Your task to perform on an android device: Open calendar and show me the fourth week of next month Image 0: 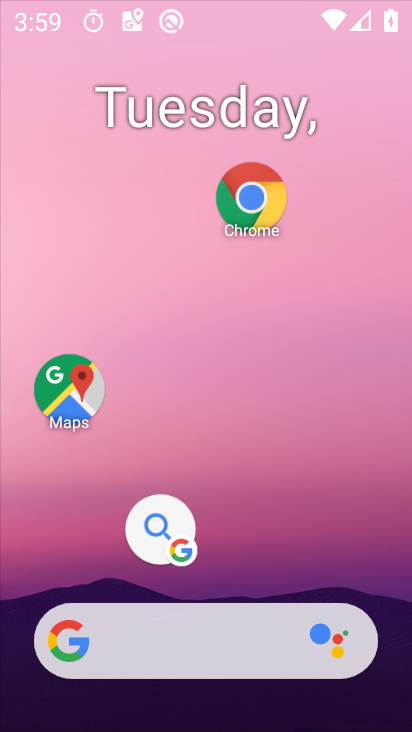
Step 0: click (78, 381)
Your task to perform on an android device: Open calendar and show me the fourth week of next month Image 1: 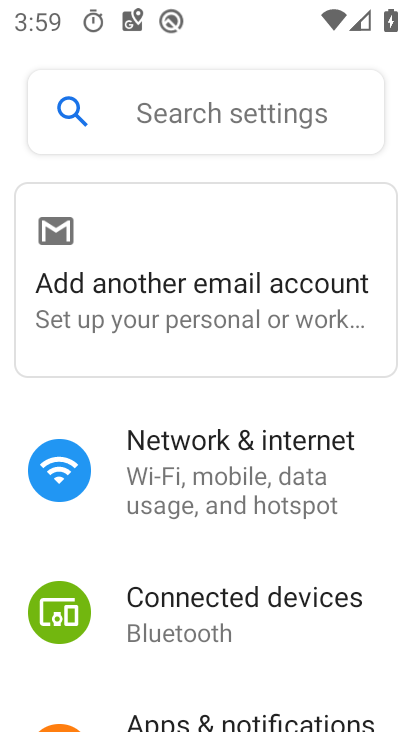
Step 1: press home button
Your task to perform on an android device: Open calendar and show me the fourth week of next month Image 2: 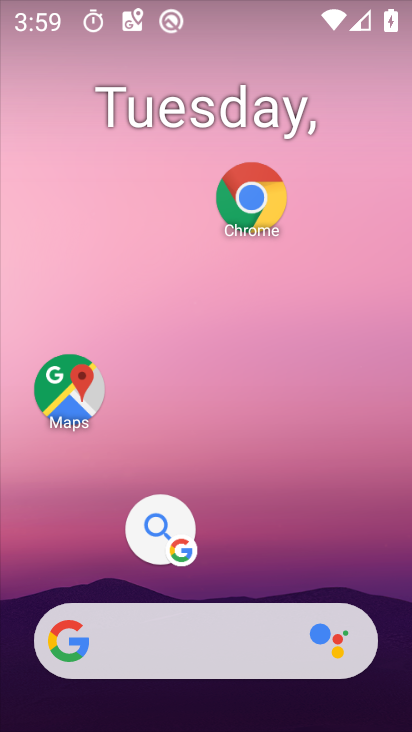
Step 2: drag from (214, 601) to (284, 237)
Your task to perform on an android device: Open calendar and show me the fourth week of next month Image 3: 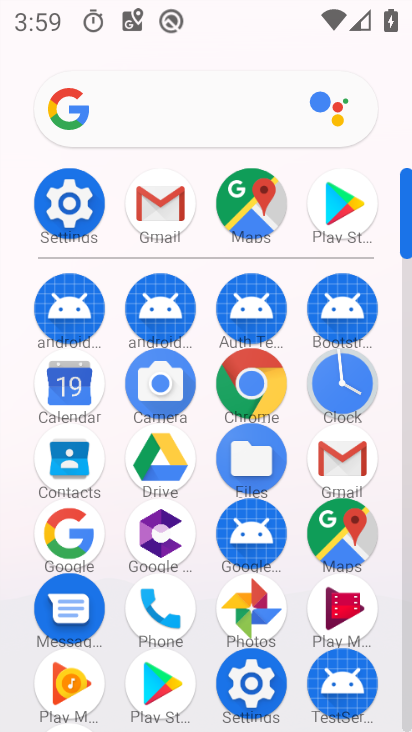
Step 3: click (70, 396)
Your task to perform on an android device: Open calendar and show me the fourth week of next month Image 4: 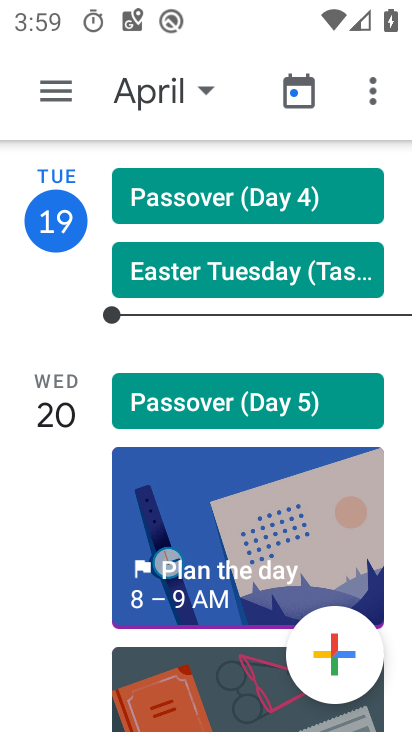
Step 4: click (180, 87)
Your task to perform on an android device: Open calendar and show me the fourth week of next month Image 5: 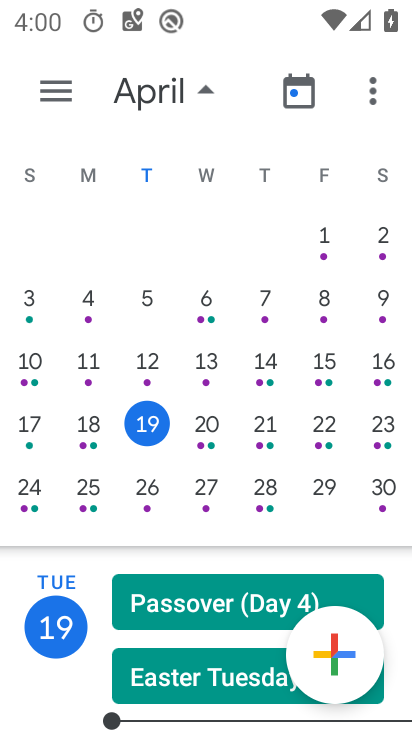
Step 5: click (172, 92)
Your task to perform on an android device: Open calendar and show me the fourth week of next month Image 6: 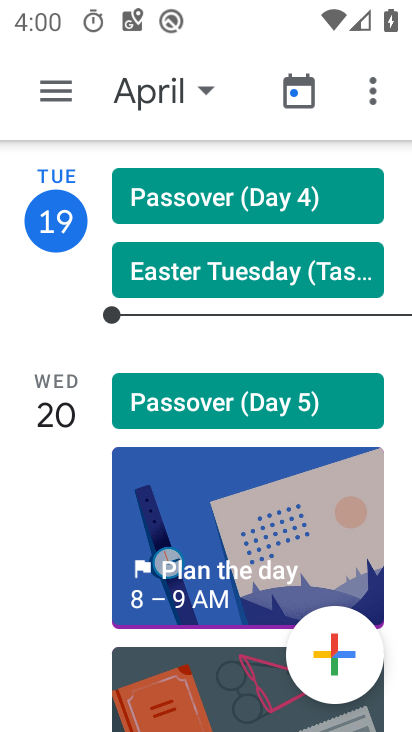
Step 6: click (193, 81)
Your task to perform on an android device: Open calendar and show me the fourth week of next month Image 7: 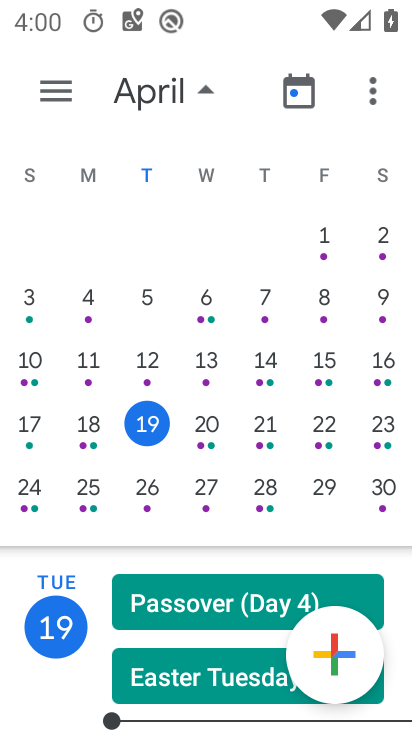
Step 7: drag from (345, 383) to (60, 484)
Your task to perform on an android device: Open calendar and show me the fourth week of next month Image 8: 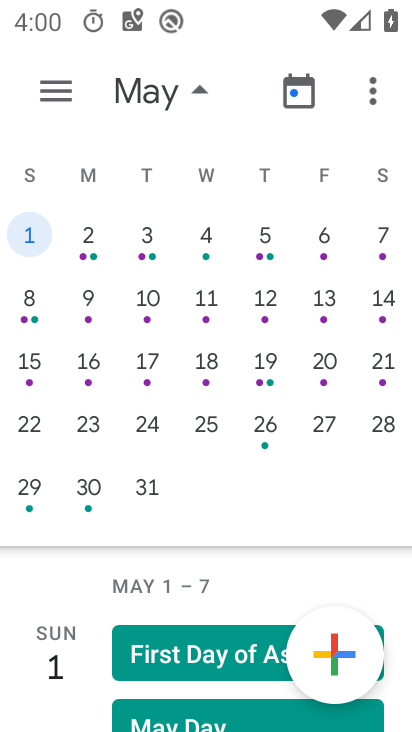
Step 8: click (1, 451)
Your task to perform on an android device: Open calendar and show me the fourth week of next month Image 9: 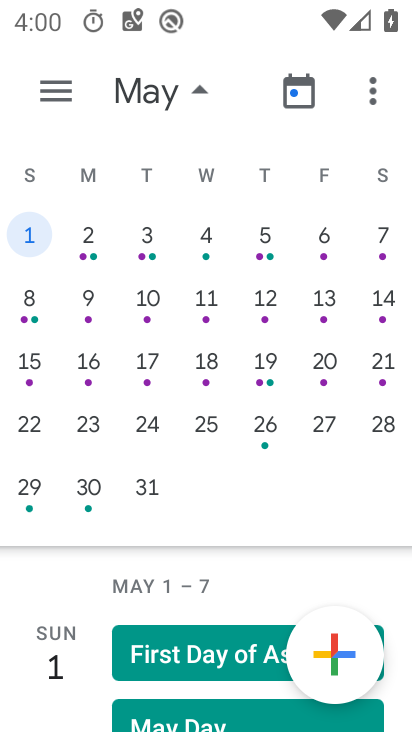
Step 9: click (33, 425)
Your task to perform on an android device: Open calendar and show me the fourth week of next month Image 10: 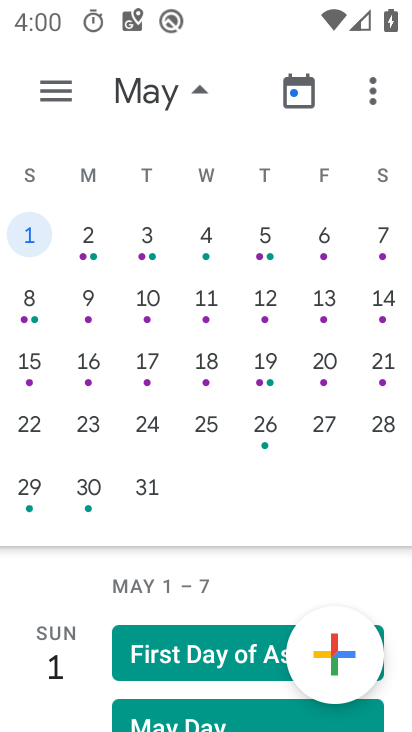
Step 10: click (33, 425)
Your task to perform on an android device: Open calendar and show me the fourth week of next month Image 11: 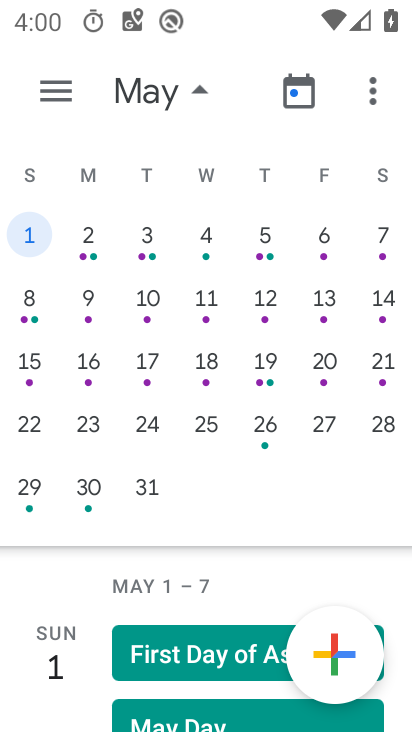
Step 11: click (26, 419)
Your task to perform on an android device: Open calendar and show me the fourth week of next month Image 12: 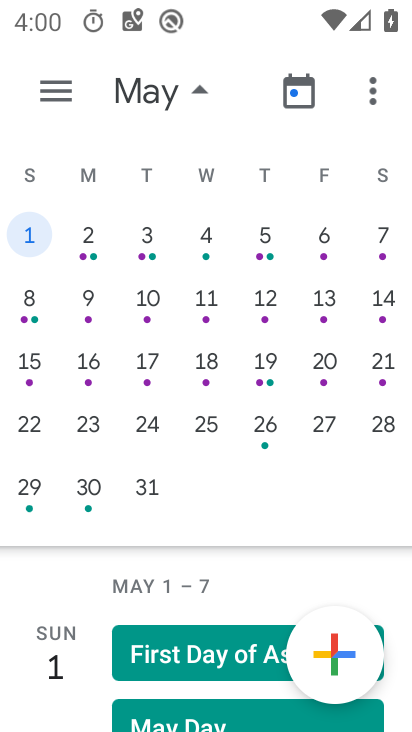
Step 12: click (32, 426)
Your task to perform on an android device: Open calendar and show me the fourth week of next month Image 13: 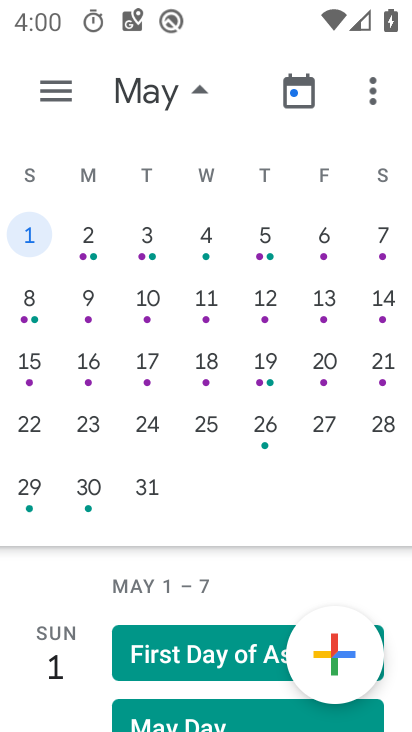
Step 13: click (39, 422)
Your task to perform on an android device: Open calendar and show me the fourth week of next month Image 14: 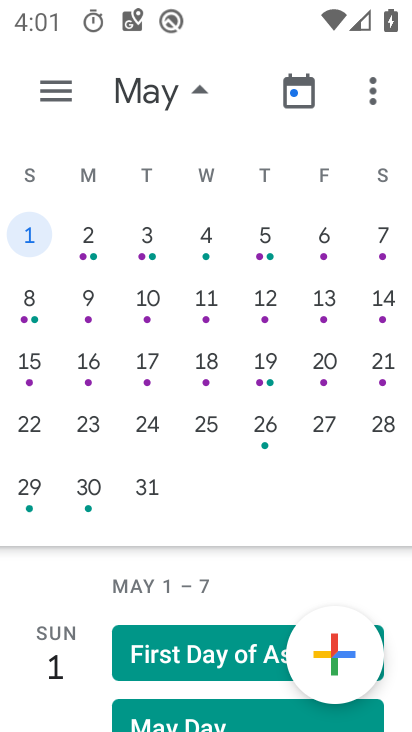
Step 14: click (32, 433)
Your task to perform on an android device: Open calendar and show me the fourth week of next month Image 15: 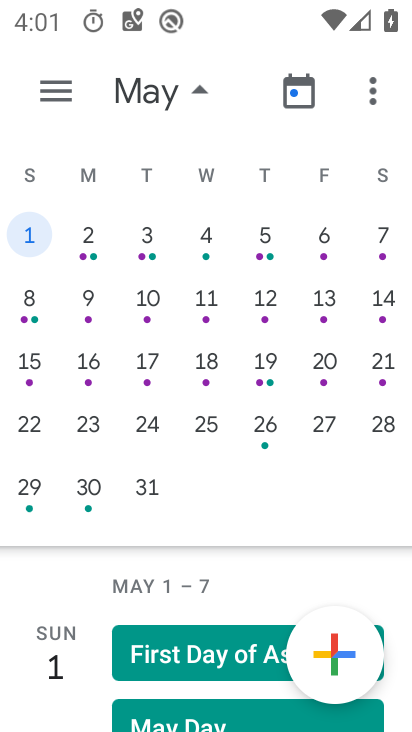
Step 15: click (42, 416)
Your task to perform on an android device: Open calendar and show me the fourth week of next month Image 16: 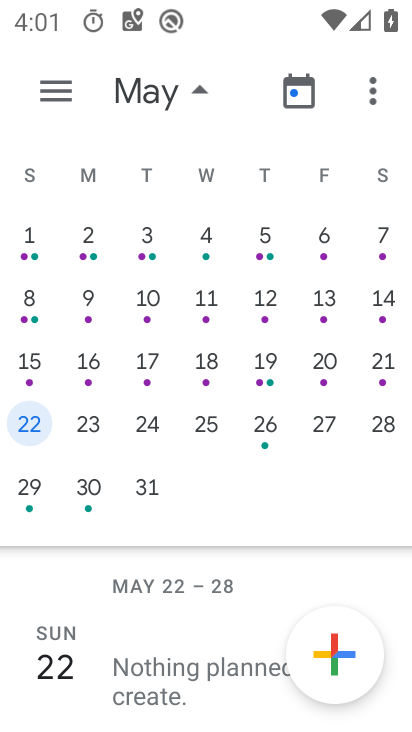
Step 16: task complete